Your task to perform on an android device: set an alarm Image 0: 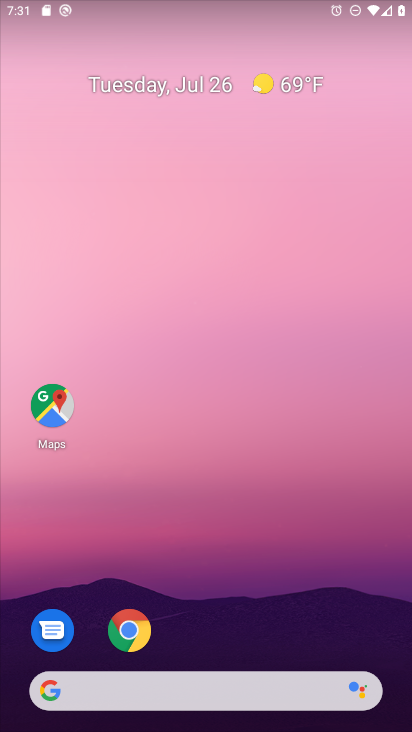
Step 0: drag from (211, 598) to (198, 121)
Your task to perform on an android device: set an alarm Image 1: 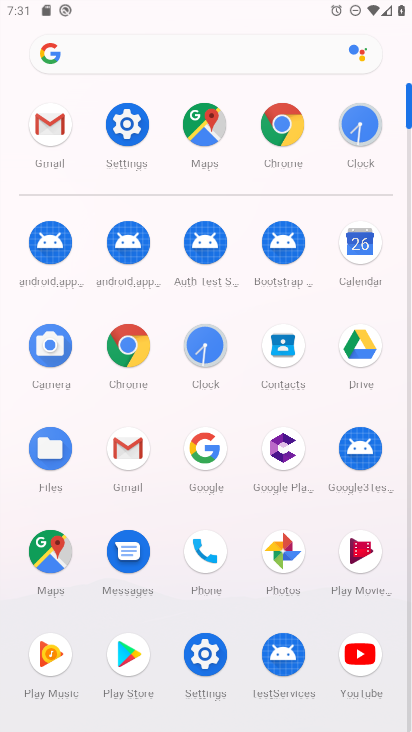
Step 1: click (199, 354)
Your task to perform on an android device: set an alarm Image 2: 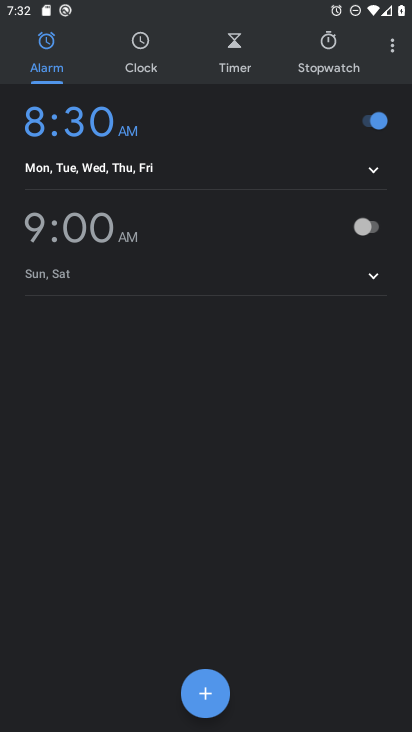
Step 2: task complete